Your task to perform on an android device: find photos in the google photos app Image 0: 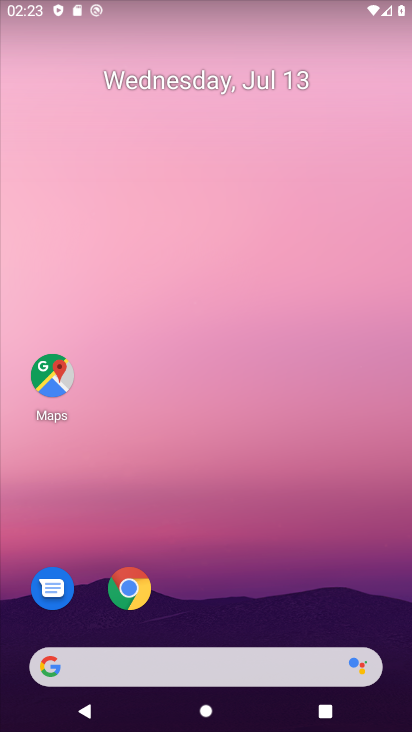
Step 0: drag from (280, 540) to (306, 148)
Your task to perform on an android device: find photos in the google photos app Image 1: 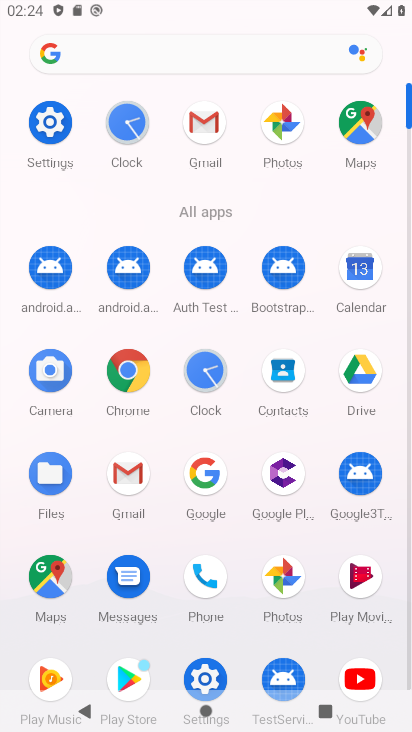
Step 1: click (289, 583)
Your task to perform on an android device: find photos in the google photos app Image 2: 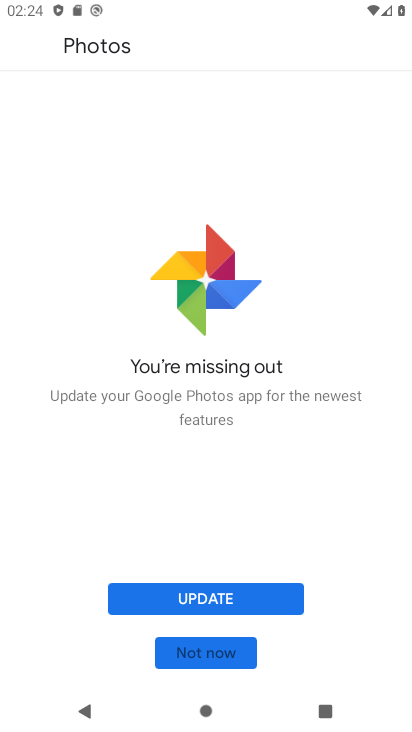
Step 2: click (207, 599)
Your task to perform on an android device: find photos in the google photos app Image 3: 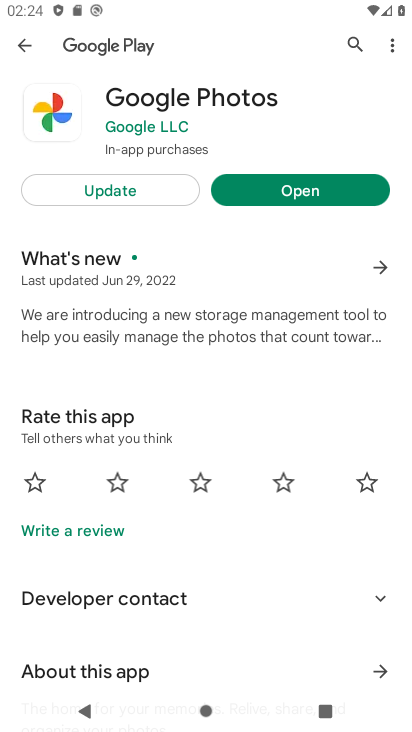
Step 3: click (97, 194)
Your task to perform on an android device: find photos in the google photos app Image 4: 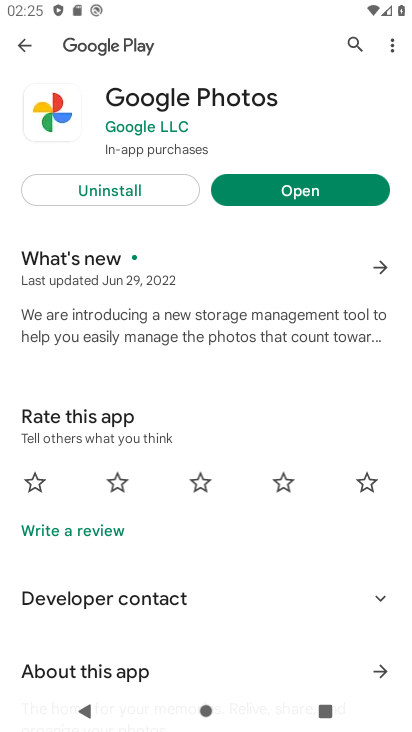
Step 4: click (291, 185)
Your task to perform on an android device: find photos in the google photos app Image 5: 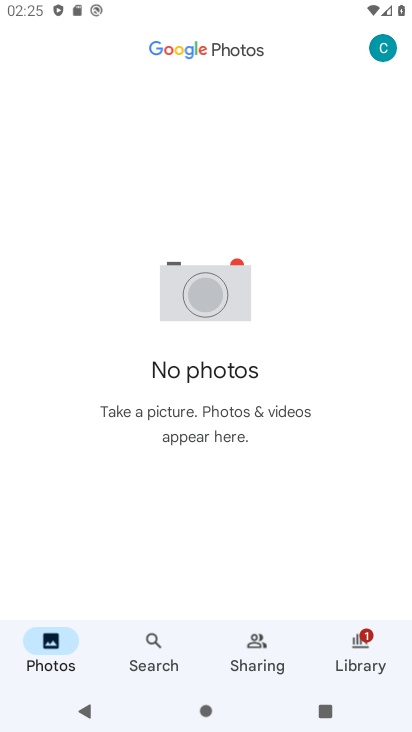
Step 5: task complete